Your task to perform on an android device: Open the calendar app, open the side menu, and click the "Day" option Image 0: 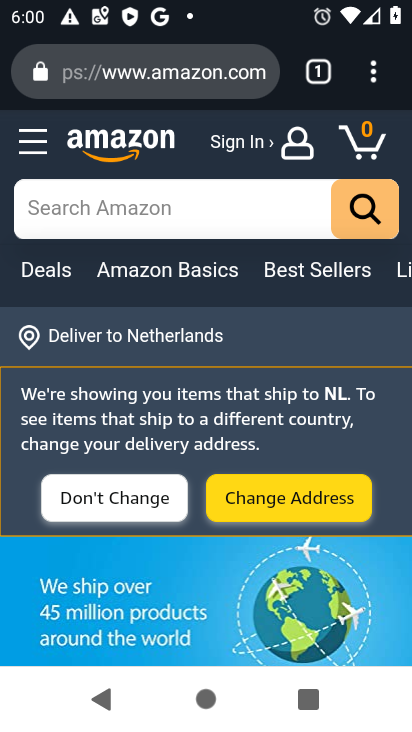
Step 0: press home button
Your task to perform on an android device: Open the calendar app, open the side menu, and click the "Day" option Image 1: 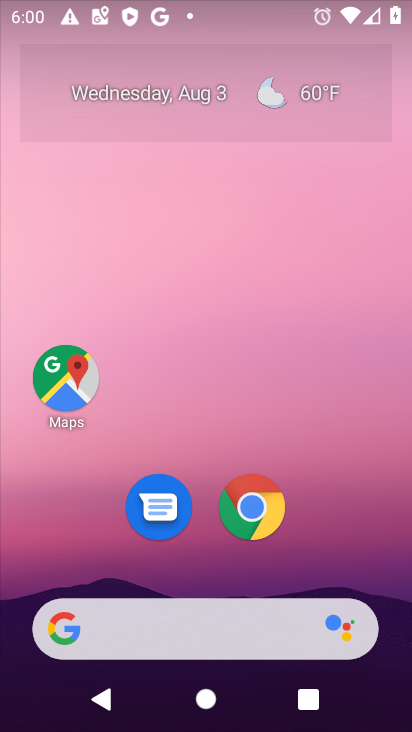
Step 1: drag from (352, 457) to (365, 51)
Your task to perform on an android device: Open the calendar app, open the side menu, and click the "Day" option Image 2: 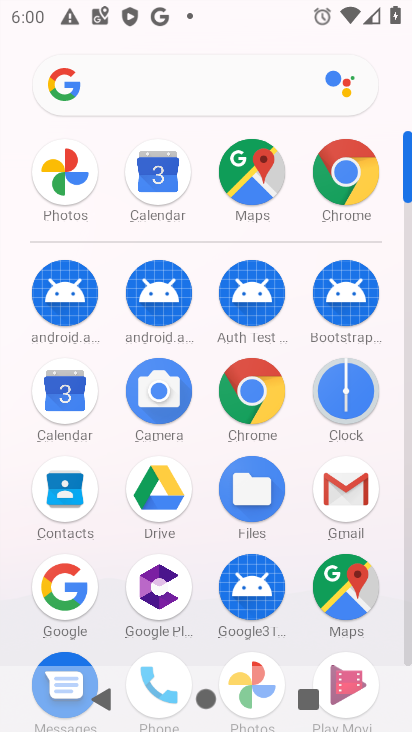
Step 2: click (58, 411)
Your task to perform on an android device: Open the calendar app, open the side menu, and click the "Day" option Image 3: 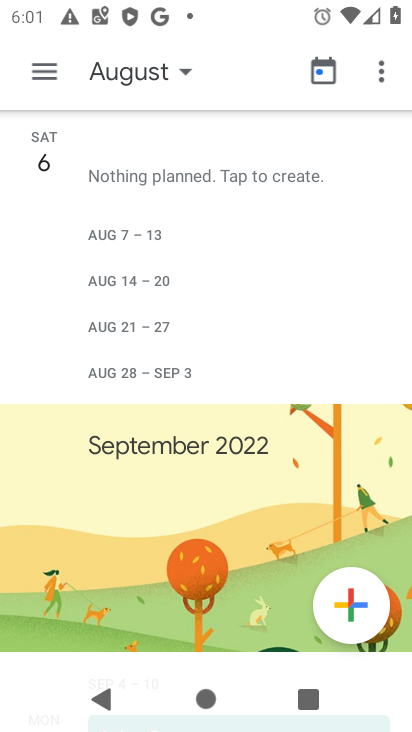
Step 3: click (40, 66)
Your task to perform on an android device: Open the calendar app, open the side menu, and click the "Day" option Image 4: 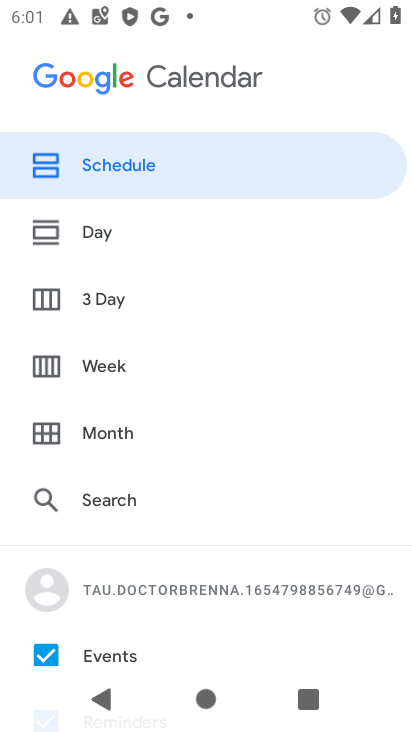
Step 4: click (99, 249)
Your task to perform on an android device: Open the calendar app, open the side menu, and click the "Day" option Image 5: 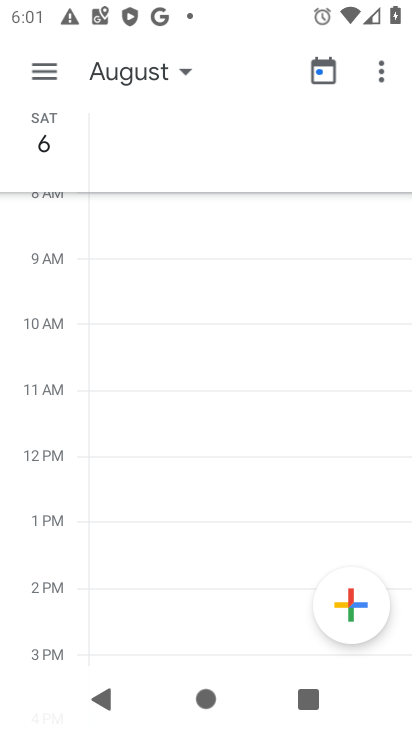
Step 5: task complete